Your task to perform on an android device: turn off priority inbox in the gmail app Image 0: 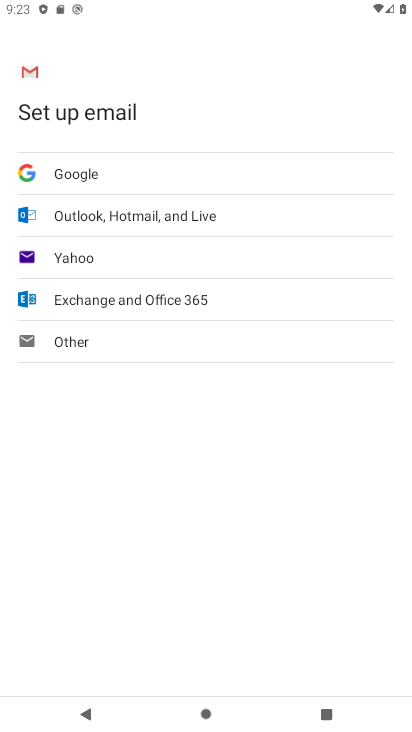
Step 0: press home button
Your task to perform on an android device: turn off priority inbox in the gmail app Image 1: 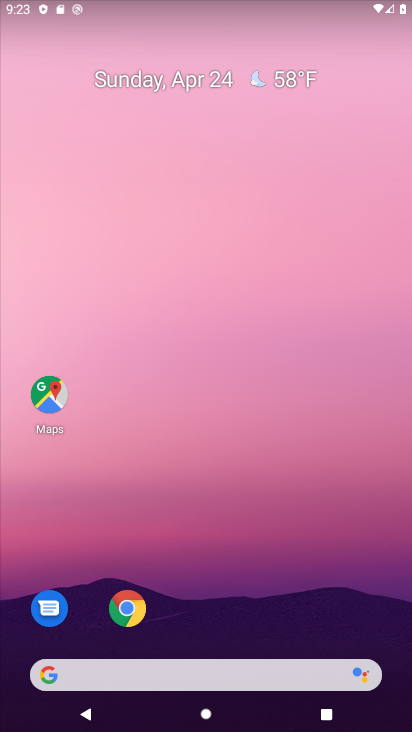
Step 1: drag from (336, 578) to (342, 116)
Your task to perform on an android device: turn off priority inbox in the gmail app Image 2: 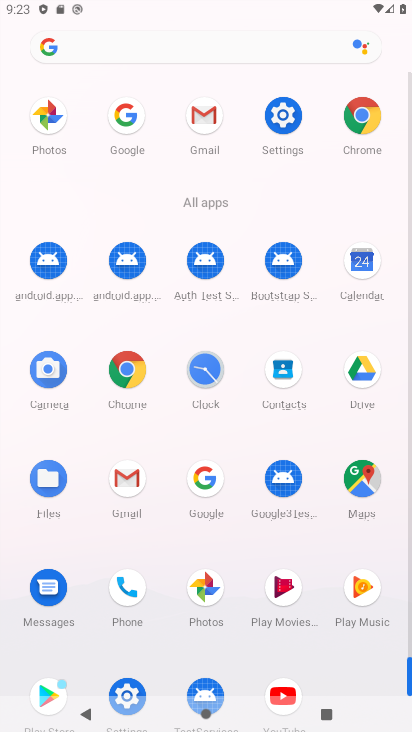
Step 2: click (216, 112)
Your task to perform on an android device: turn off priority inbox in the gmail app Image 3: 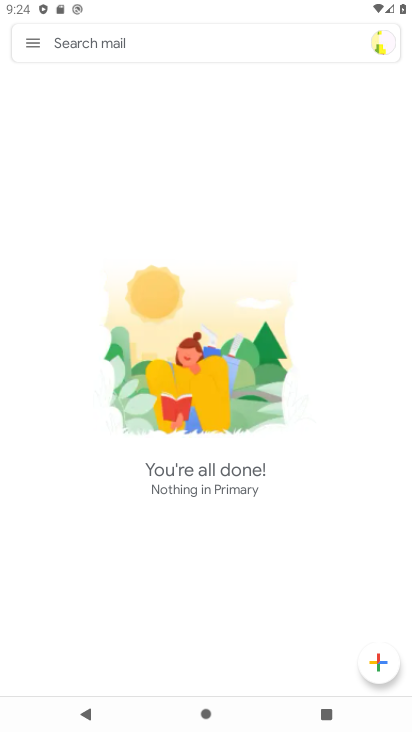
Step 3: click (23, 47)
Your task to perform on an android device: turn off priority inbox in the gmail app Image 4: 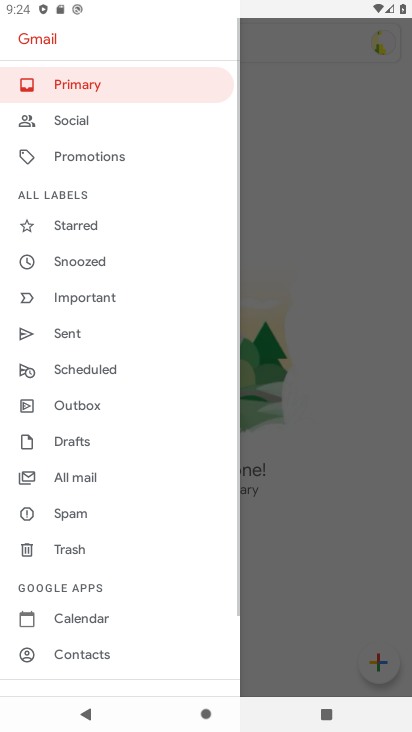
Step 4: drag from (92, 565) to (123, 170)
Your task to perform on an android device: turn off priority inbox in the gmail app Image 5: 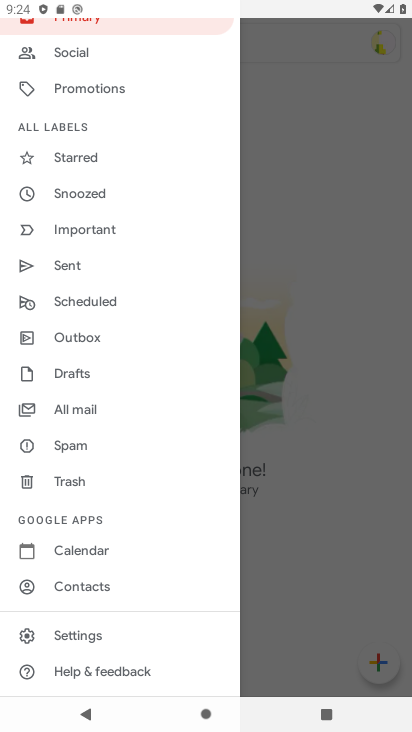
Step 5: drag from (137, 642) to (101, 176)
Your task to perform on an android device: turn off priority inbox in the gmail app Image 6: 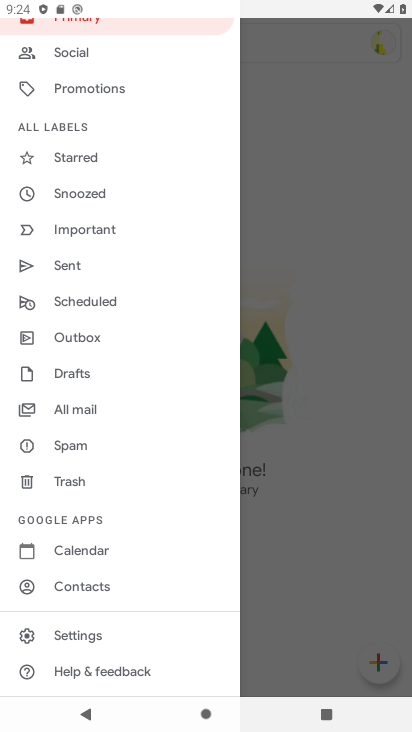
Step 6: click (79, 639)
Your task to perform on an android device: turn off priority inbox in the gmail app Image 7: 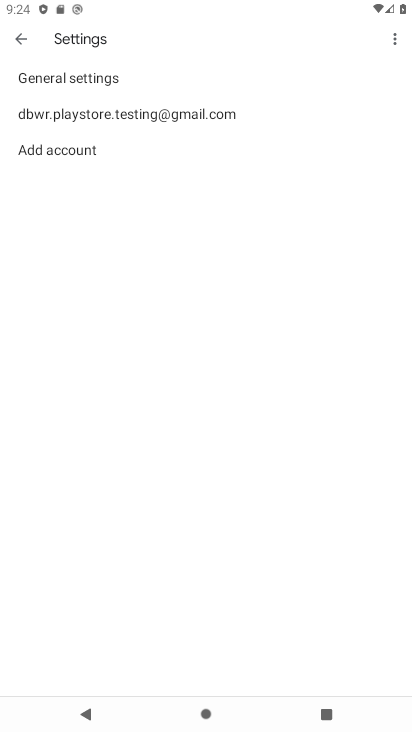
Step 7: click (84, 118)
Your task to perform on an android device: turn off priority inbox in the gmail app Image 8: 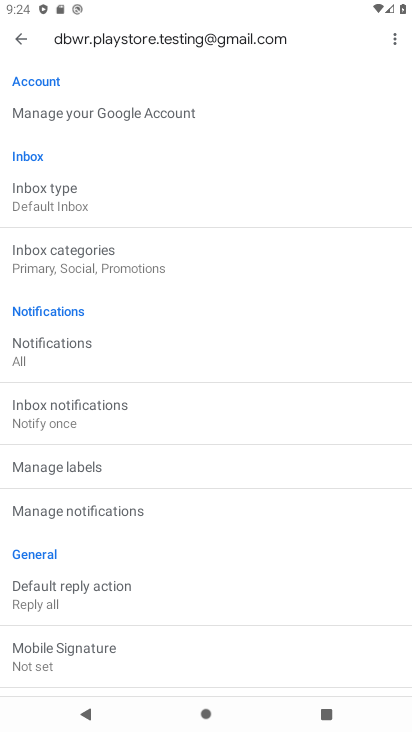
Step 8: drag from (173, 396) to (169, 614)
Your task to perform on an android device: turn off priority inbox in the gmail app Image 9: 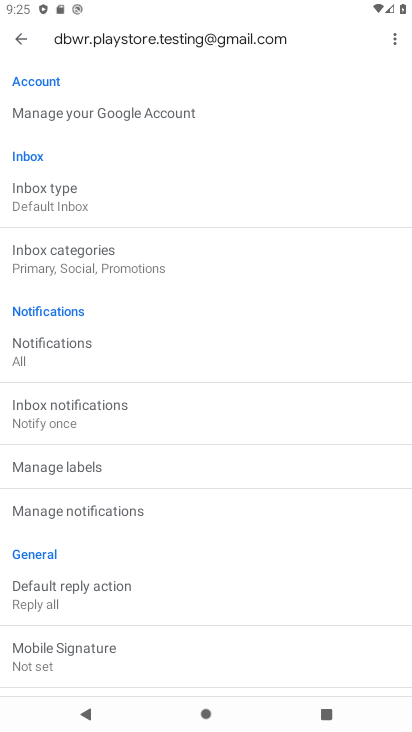
Step 9: drag from (97, 503) to (173, 171)
Your task to perform on an android device: turn off priority inbox in the gmail app Image 10: 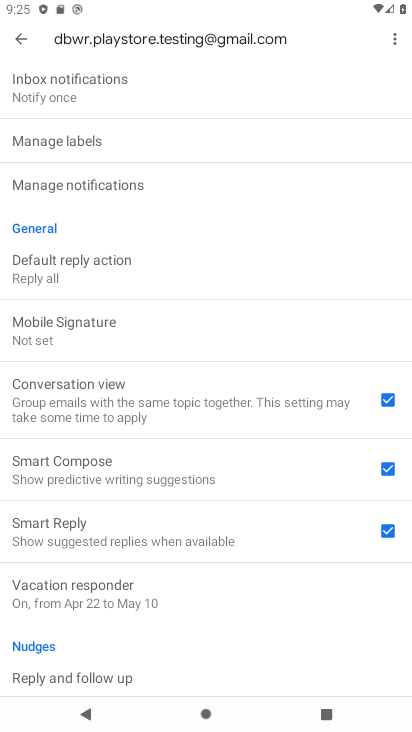
Step 10: drag from (152, 381) to (131, 589)
Your task to perform on an android device: turn off priority inbox in the gmail app Image 11: 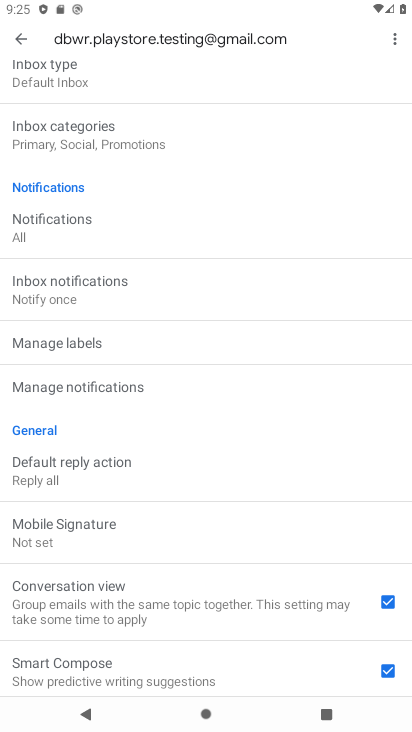
Step 11: drag from (297, 201) to (257, 660)
Your task to perform on an android device: turn off priority inbox in the gmail app Image 12: 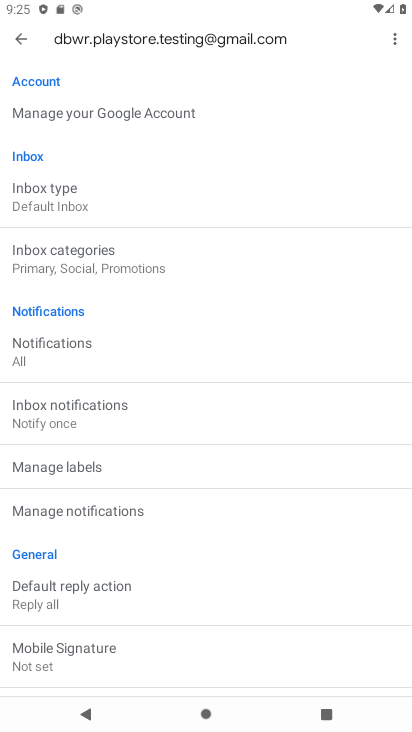
Step 12: click (84, 202)
Your task to perform on an android device: turn off priority inbox in the gmail app Image 13: 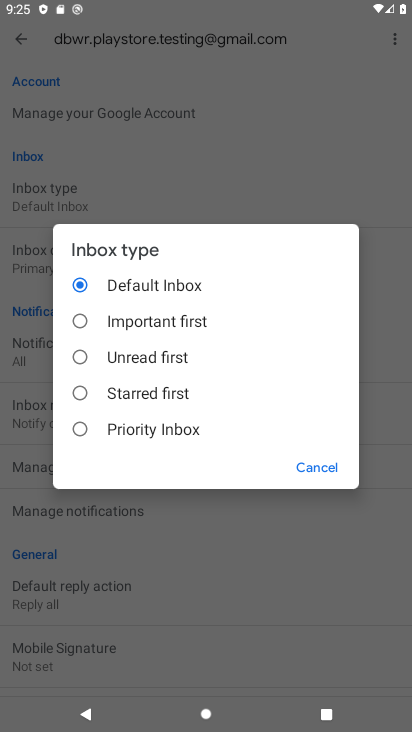
Step 13: click (125, 433)
Your task to perform on an android device: turn off priority inbox in the gmail app Image 14: 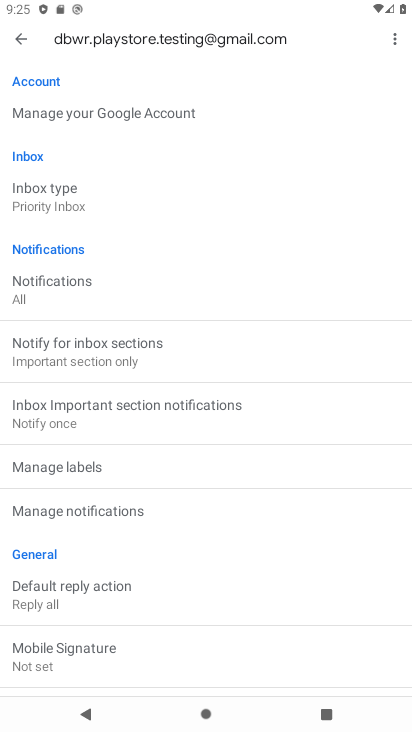
Step 14: task complete